Your task to perform on an android device: toggle sleep mode Image 0: 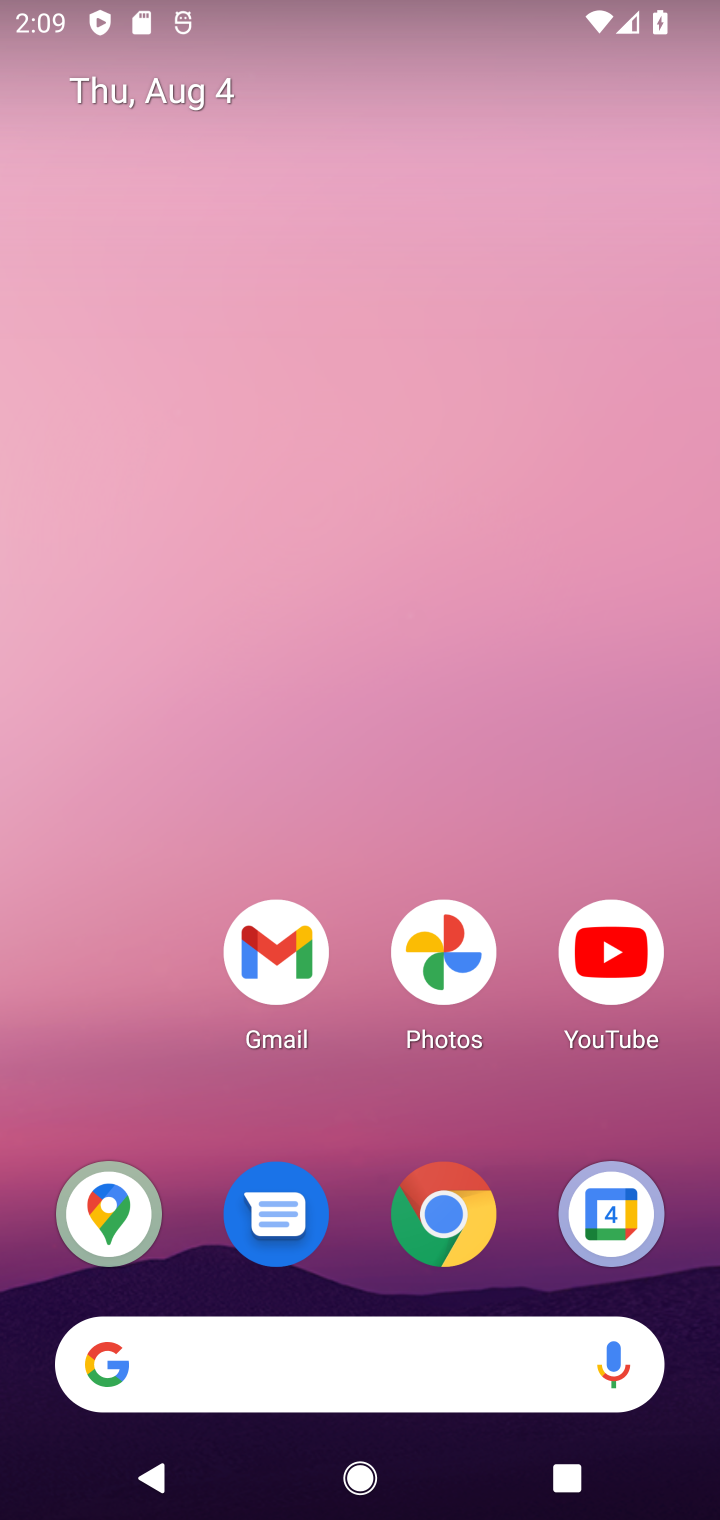
Step 0: drag from (155, 1063) to (52, 52)
Your task to perform on an android device: toggle sleep mode Image 1: 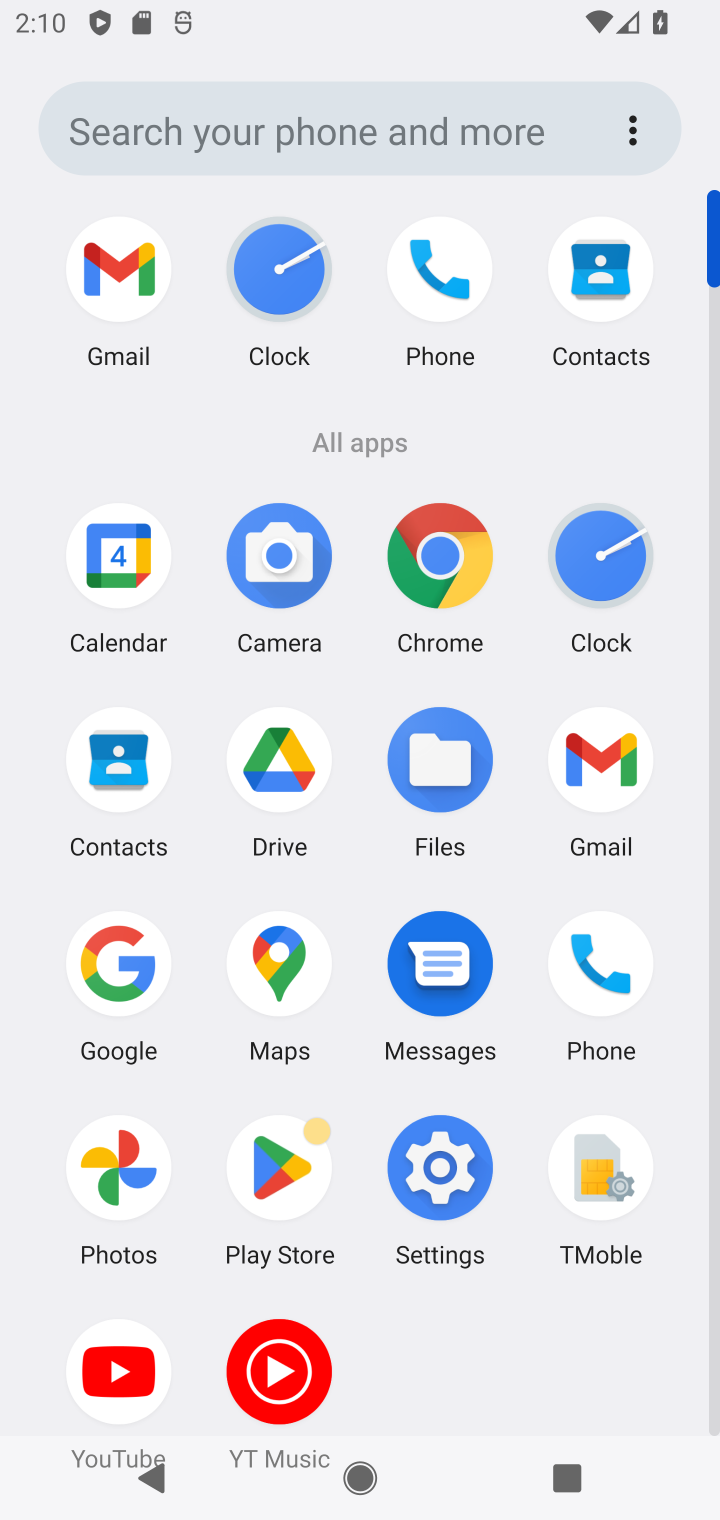
Step 1: click (418, 1167)
Your task to perform on an android device: toggle sleep mode Image 2: 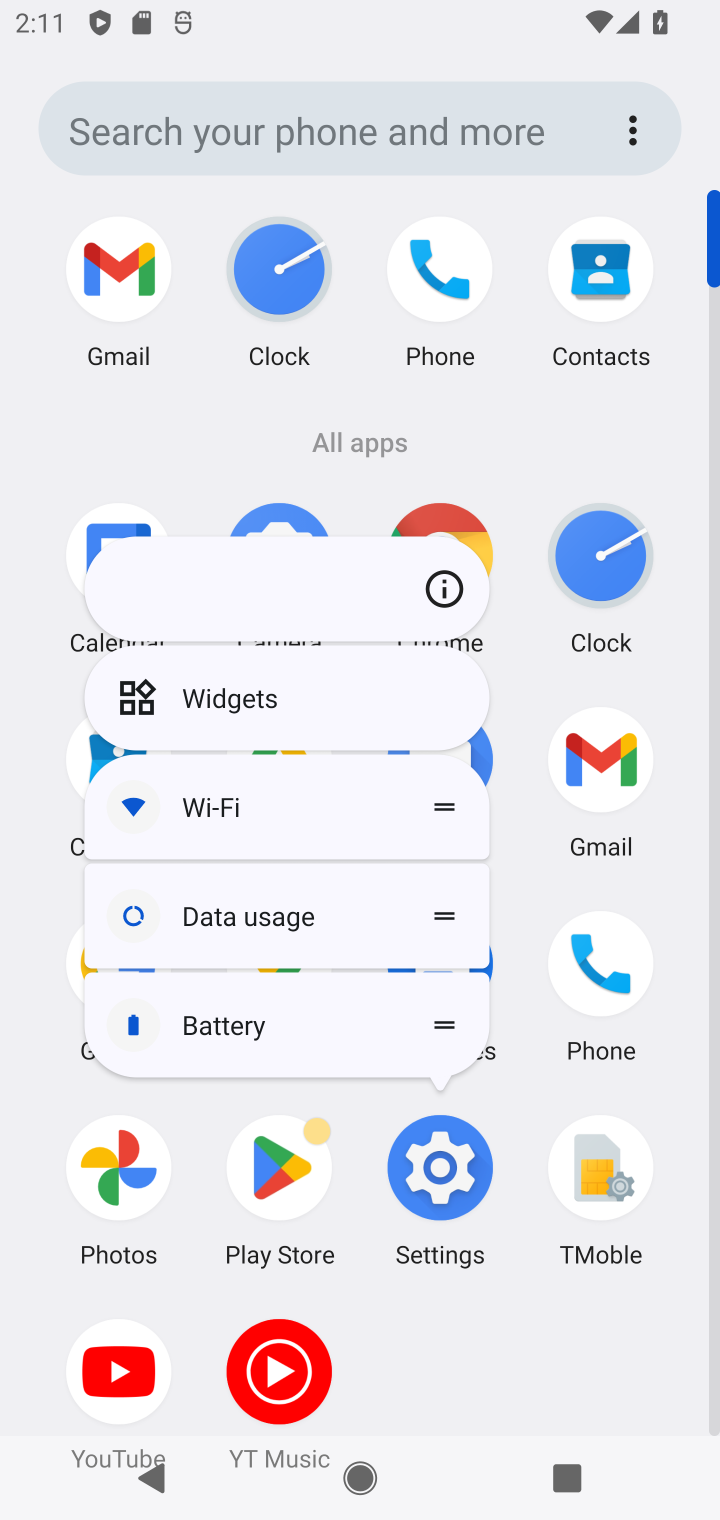
Step 2: click (412, 1184)
Your task to perform on an android device: toggle sleep mode Image 3: 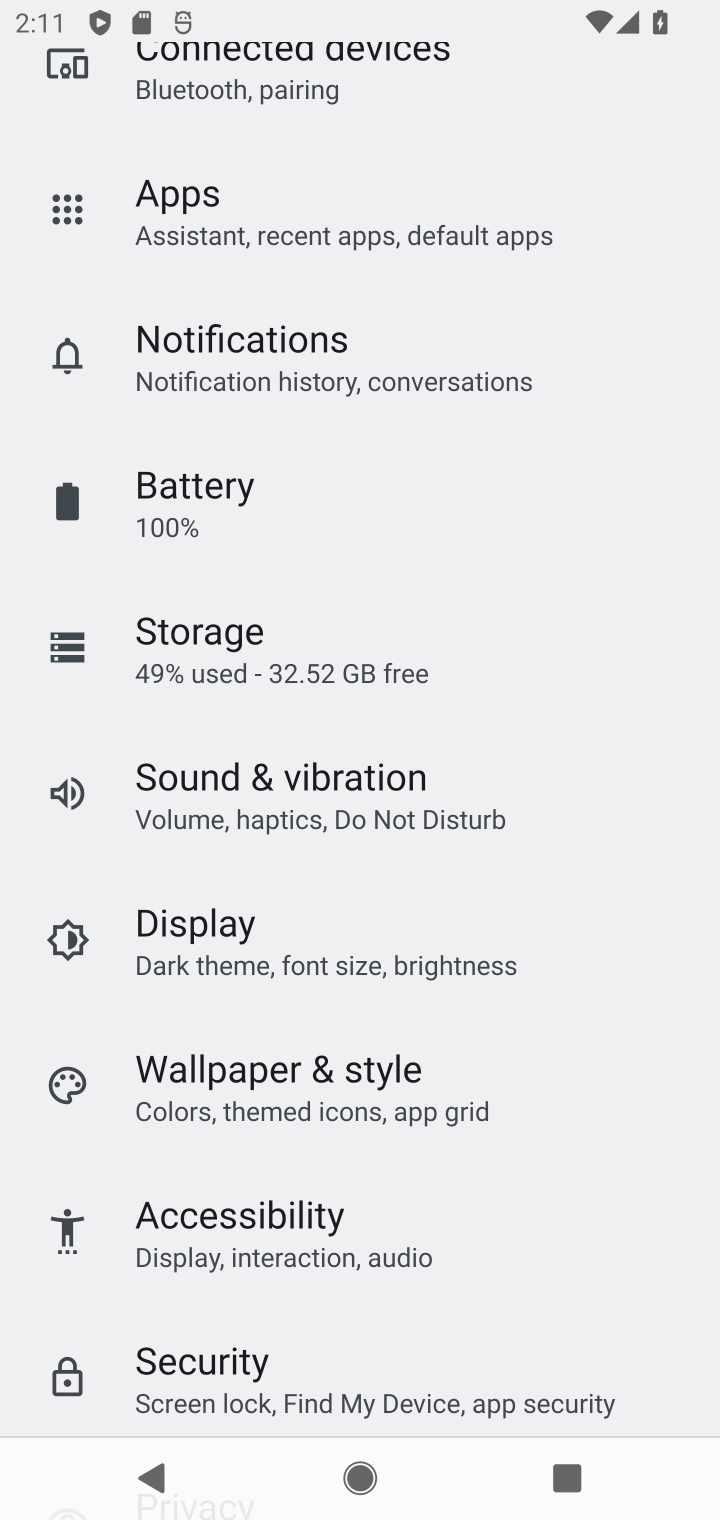
Step 3: task complete